Your task to perform on an android device: Open the web browser Image 0: 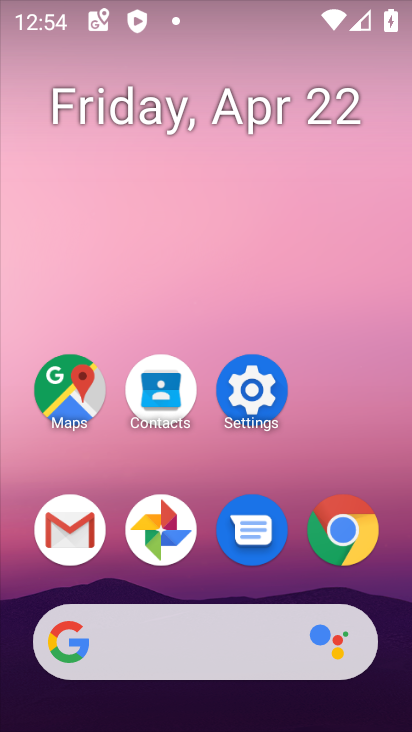
Step 0: click (357, 539)
Your task to perform on an android device: Open the web browser Image 1: 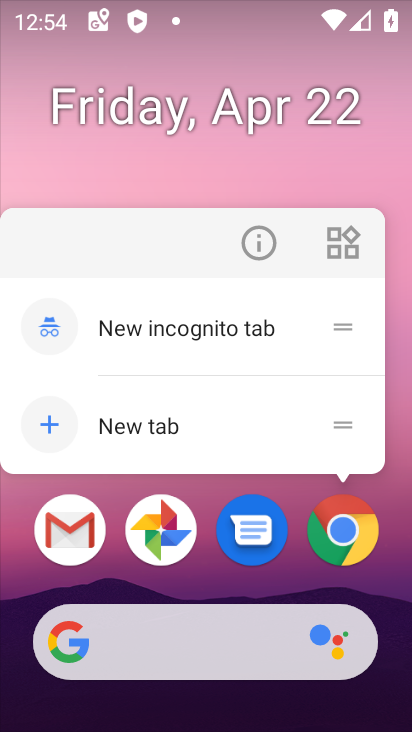
Step 1: click (336, 531)
Your task to perform on an android device: Open the web browser Image 2: 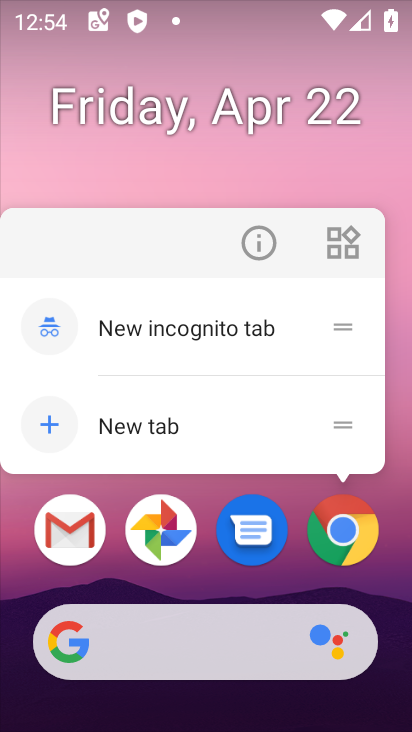
Step 2: click (334, 532)
Your task to perform on an android device: Open the web browser Image 3: 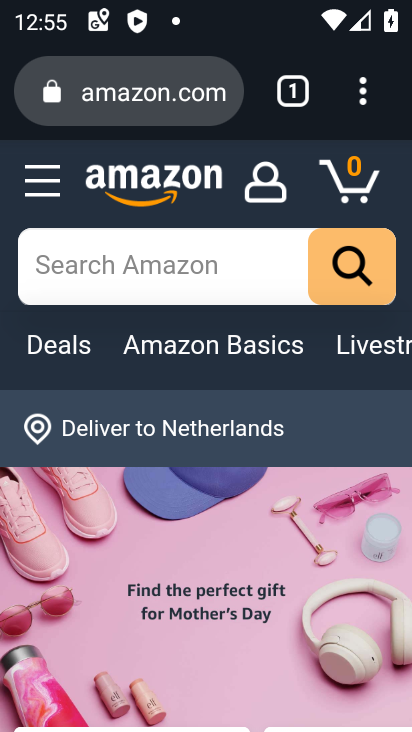
Step 3: task complete